Your task to perform on an android device: Is it going to rain tomorrow? Image 0: 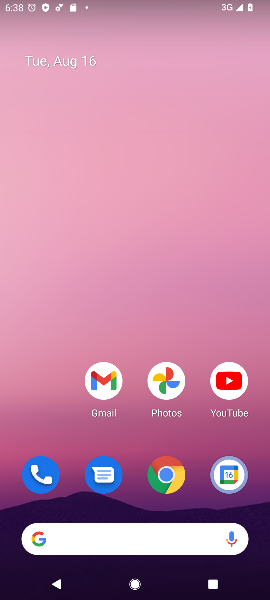
Step 0: drag from (252, 438) to (29, 40)
Your task to perform on an android device: Is it going to rain tomorrow? Image 1: 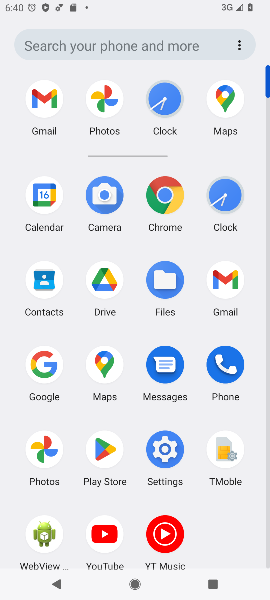
Step 1: click (53, 366)
Your task to perform on an android device: Is it going to rain tomorrow? Image 2: 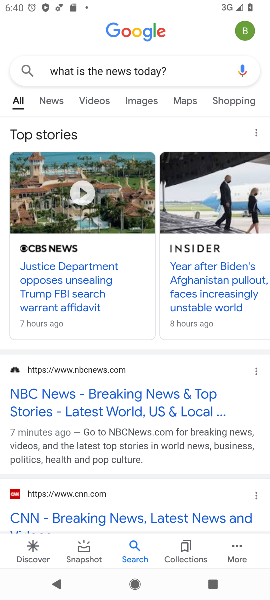
Step 2: press back button
Your task to perform on an android device: Is it going to rain tomorrow? Image 3: 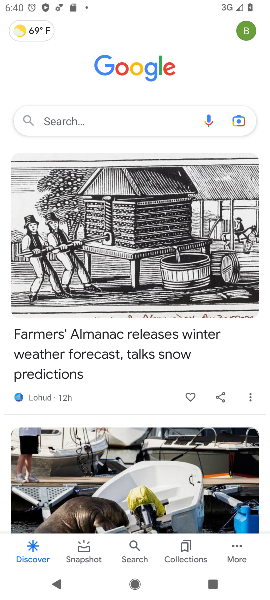
Step 3: click (80, 124)
Your task to perform on an android device: Is it going to rain tomorrow? Image 4: 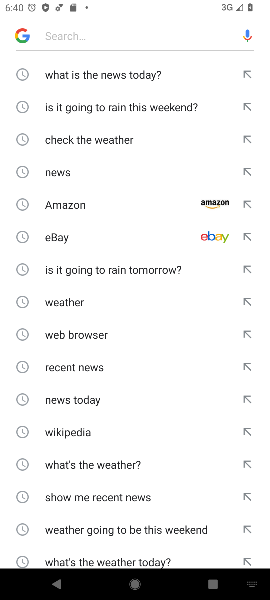
Step 4: click (111, 280)
Your task to perform on an android device: Is it going to rain tomorrow? Image 5: 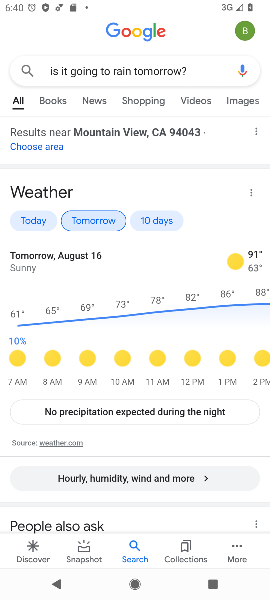
Step 5: task complete